Your task to perform on an android device: Go to Maps Image 0: 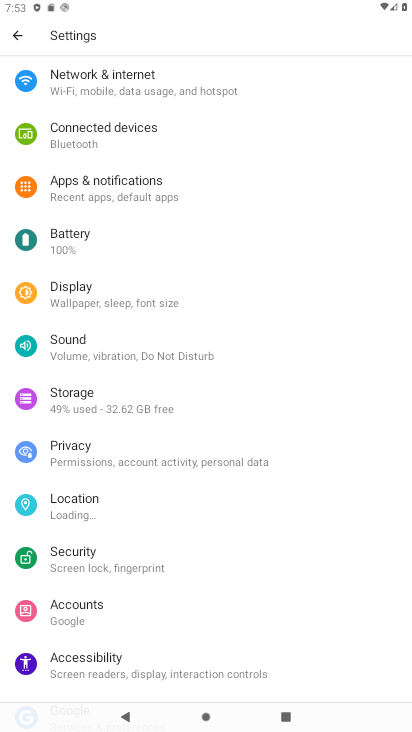
Step 0: press back button
Your task to perform on an android device: Go to Maps Image 1: 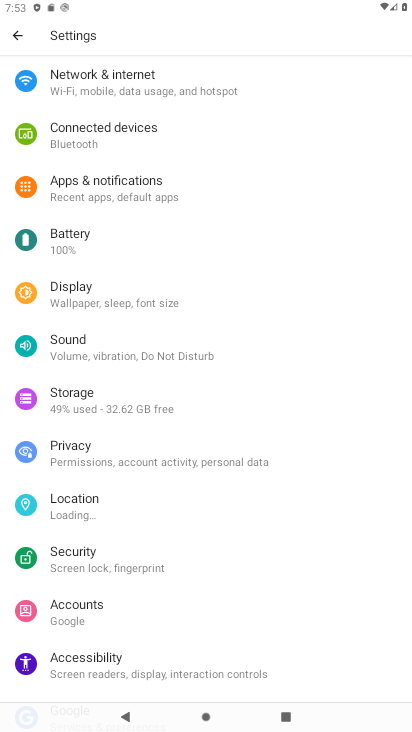
Step 1: press back button
Your task to perform on an android device: Go to Maps Image 2: 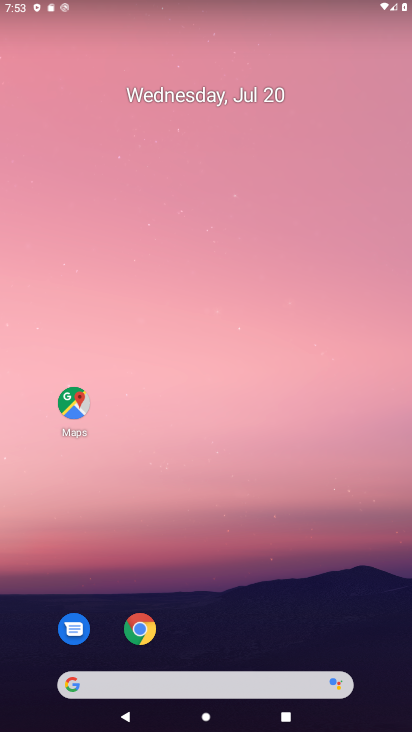
Step 2: drag from (261, 640) to (247, 109)
Your task to perform on an android device: Go to Maps Image 3: 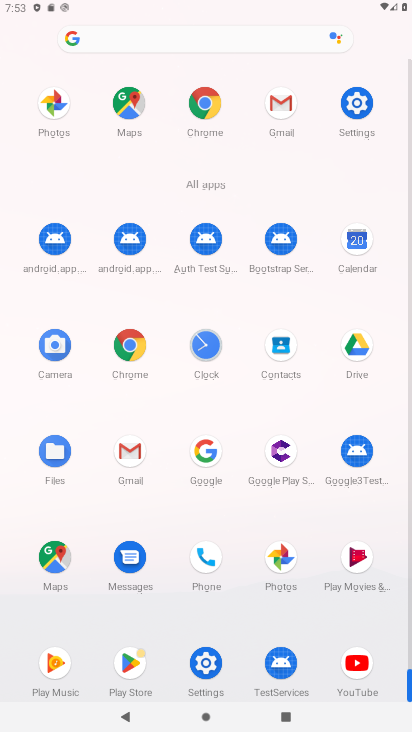
Step 3: click (132, 113)
Your task to perform on an android device: Go to Maps Image 4: 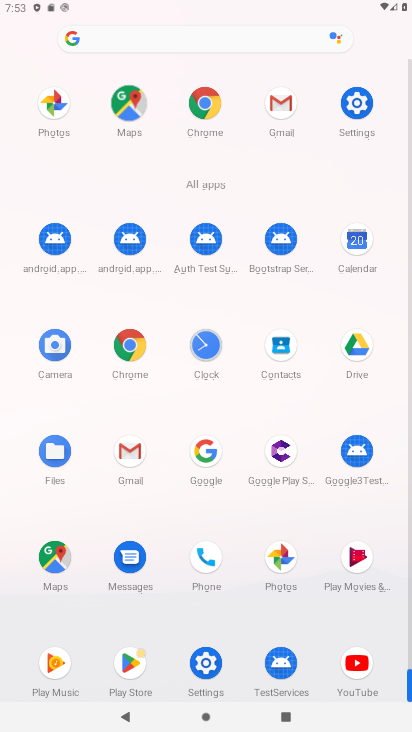
Step 4: click (133, 104)
Your task to perform on an android device: Go to Maps Image 5: 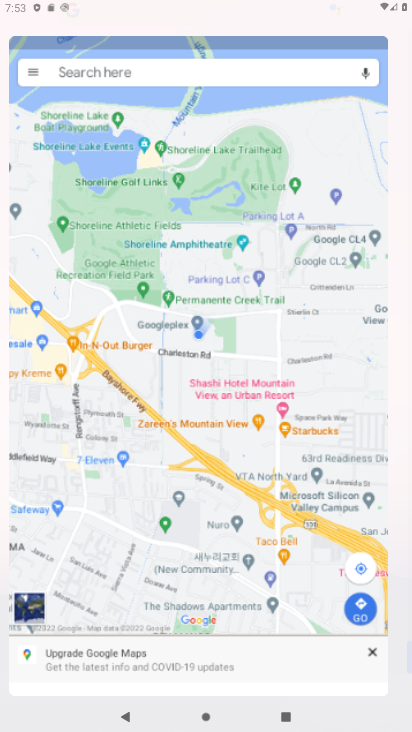
Step 5: click (134, 105)
Your task to perform on an android device: Go to Maps Image 6: 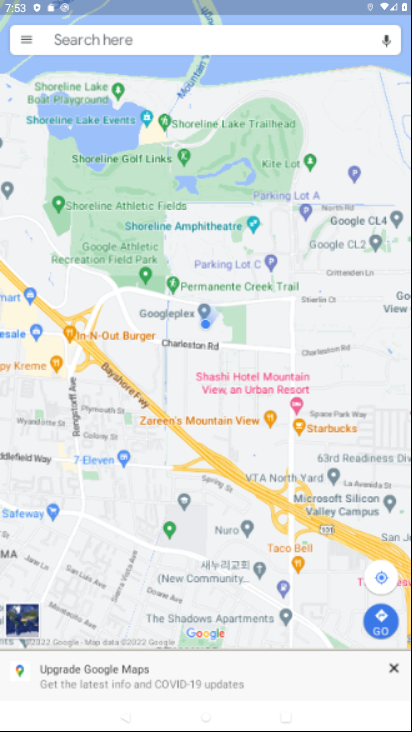
Step 6: click (136, 106)
Your task to perform on an android device: Go to Maps Image 7: 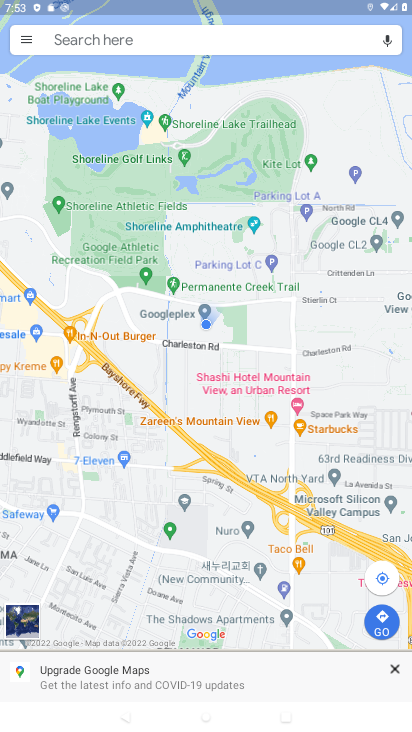
Step 7: task complete